Your task to perform on an android device: check the backup settings in the google photos Image 0: 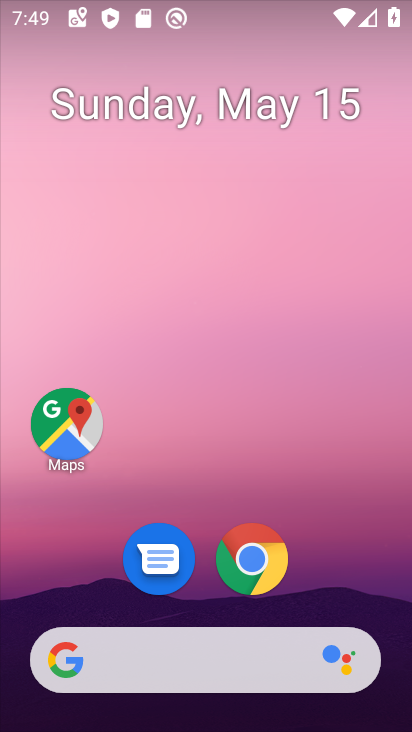
Step 0: drag from (356, 571) to (351, 187)
Your task to perform on an android device: check the backup settings in the google photos Image 1: 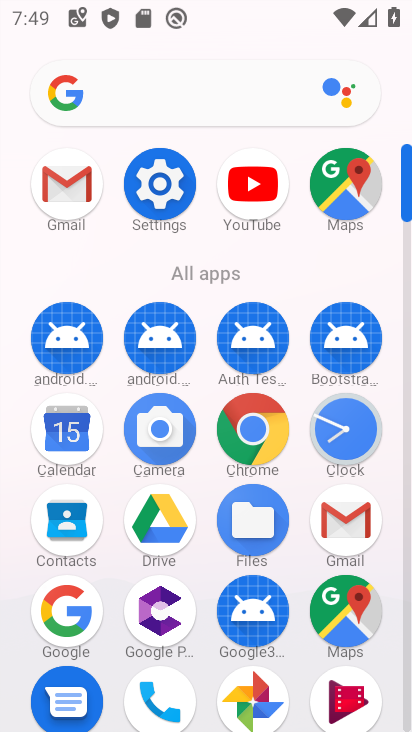
Step 1: click (246, 682)
Your task to perform on an android device: check the backup settings in the google photos Image 2: 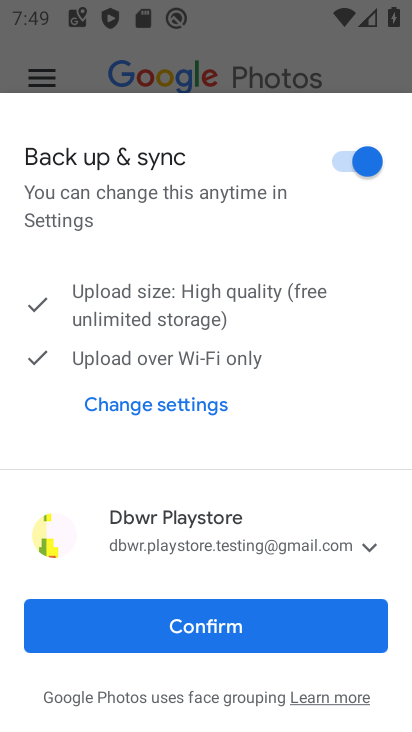
Step 2: click (247, 631)
Your task to perform on an android device: check the backup settings in the google photos Image 3: 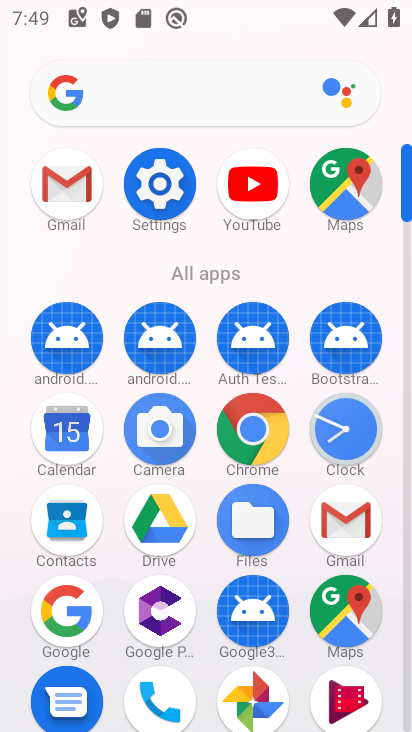
Step 3: click (254, 686)
Your task to perform on an android device: check the backup settings in the google photos Image 4: 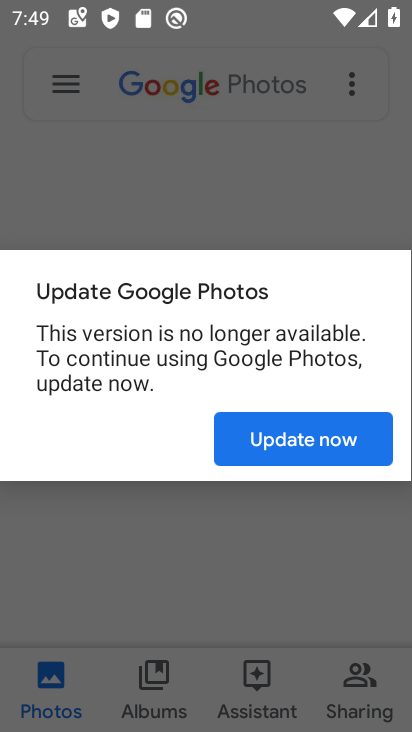
Step 4: click (299, 434)
Your task to perform on an android device: check the backup settings in the google photos Image 5: 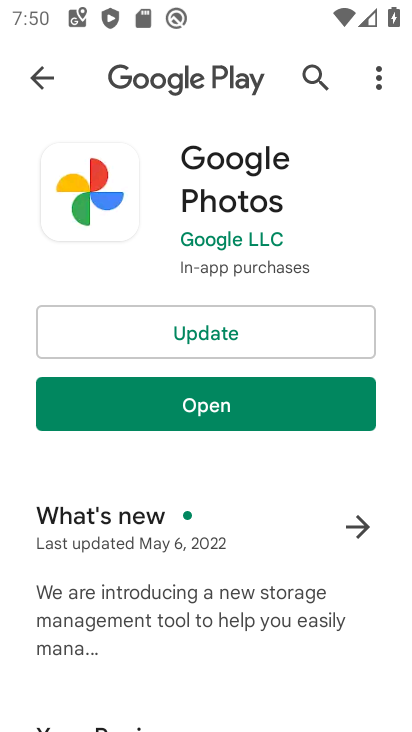
Step 5: click (234, 346)
Your task to perform on an android device: check the backup settings in the google photos Image 6: 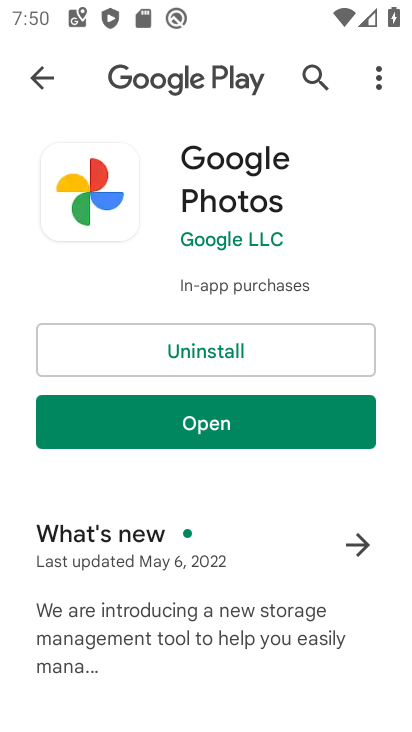
Step 6: click (268, 447)
Your task to perform on an android device: check the backup settings in the google photos Image 7: 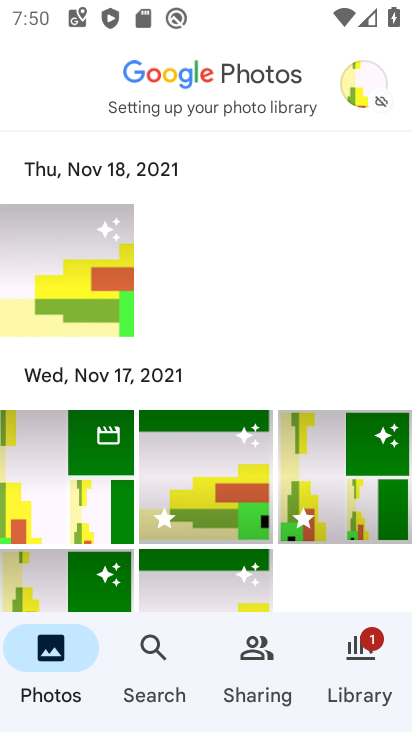
Step 7: click (351, 103)
Your task to perform on an android device: check the backup settings in the google photos Image 8: 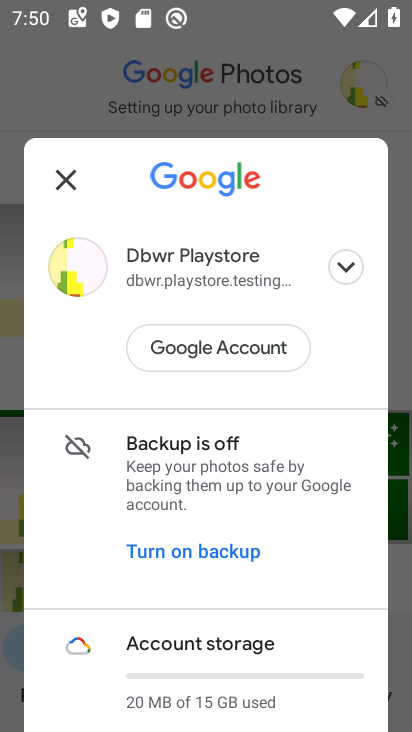
Step 8: drag from (211, 529) to (221, 343)
Your task to perform on an android device: check the backup settings in the google photos Image 9: 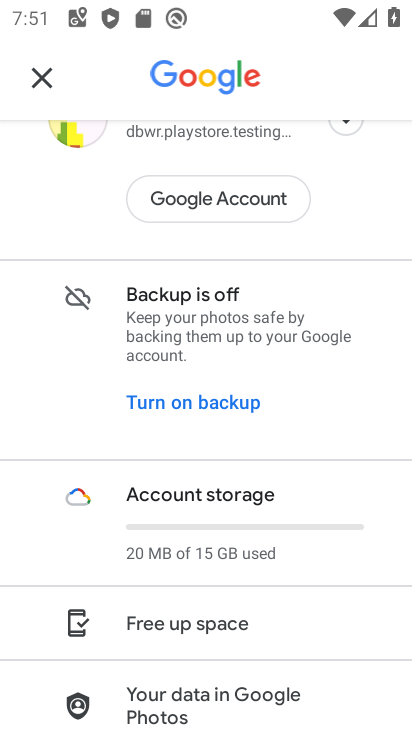
Step 9: click (195, 374)
Your task to perform on an android device: check the backup settings in the google photos Image 10: 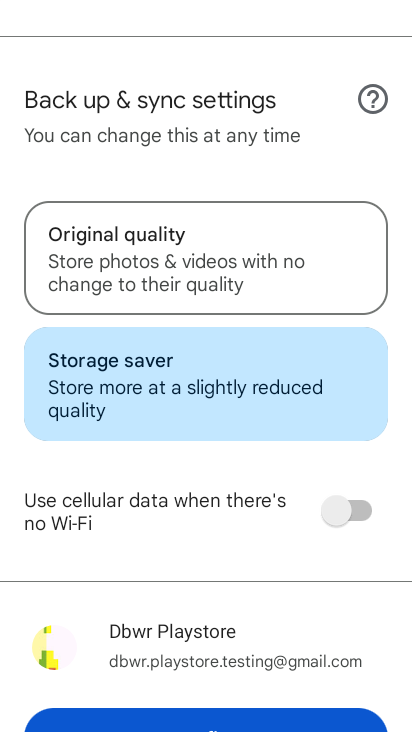
Step 10: click (195, 413)
Your task to perform on an android device: check the backup settings in the google photos Image 11: 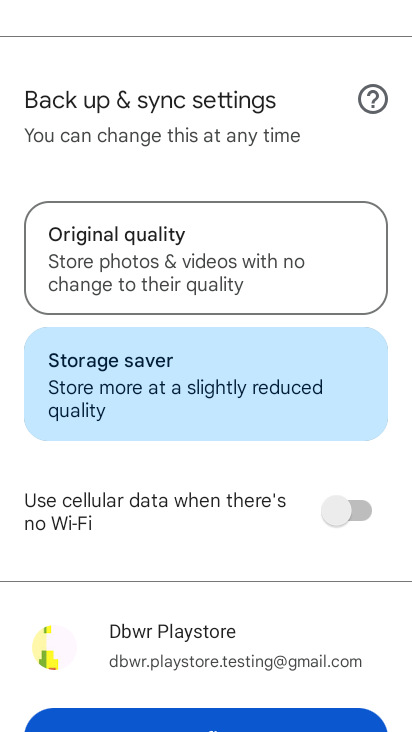
Step 11: task complete